Your task to perform on an android device: Open Youtube and go to "Your channel" Image 0: 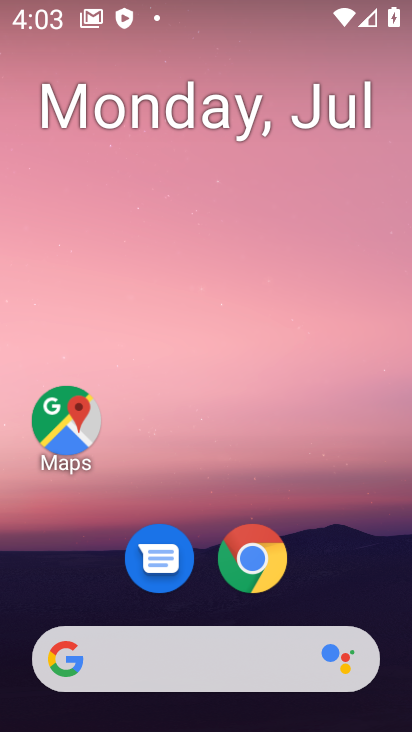
Step 0: drag from (204, 609) to (276, 5)
Your task to perform on an android device: Open Youtube and go to "Your channel" Image 1: 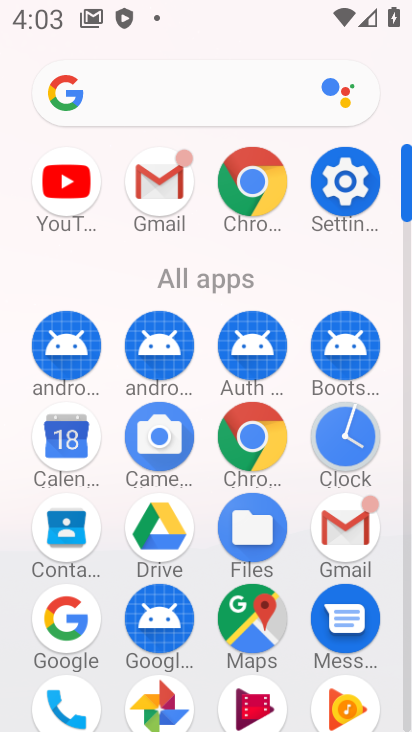
Step 1: click (58, 182)
Your task to perform on an android device: Open Youtube and go to "Your channel" Image 2: 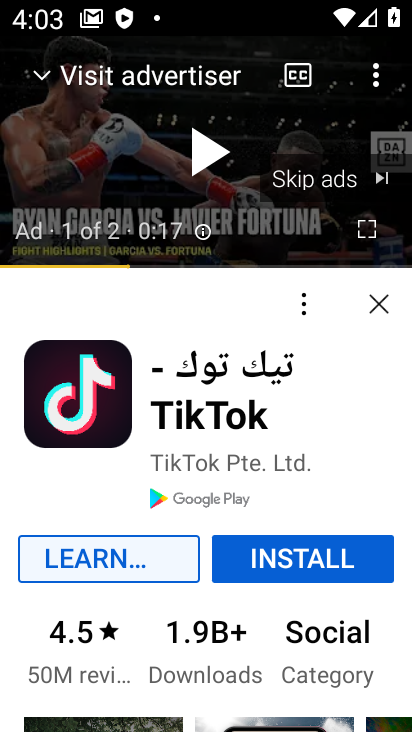
Step 2: drag from (203, 121) to (226, 614)
Your task to perform on an android device: Open Youtube and go to "Your channel" Image 3: 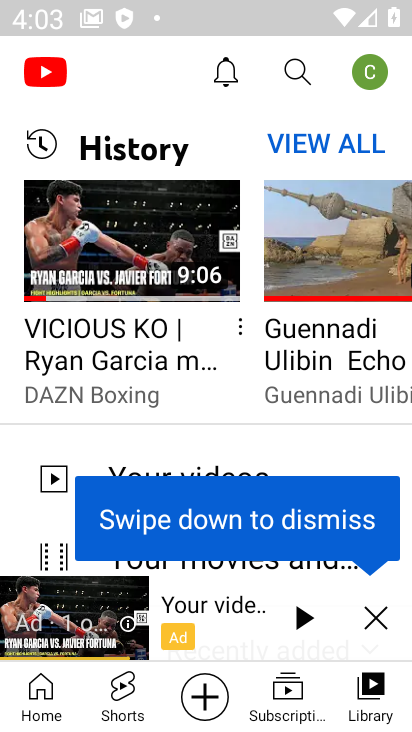
Step 3: click (370, 68)
Your task to perform on an android device: Open Youtube and go to "Your channel" Image 4: 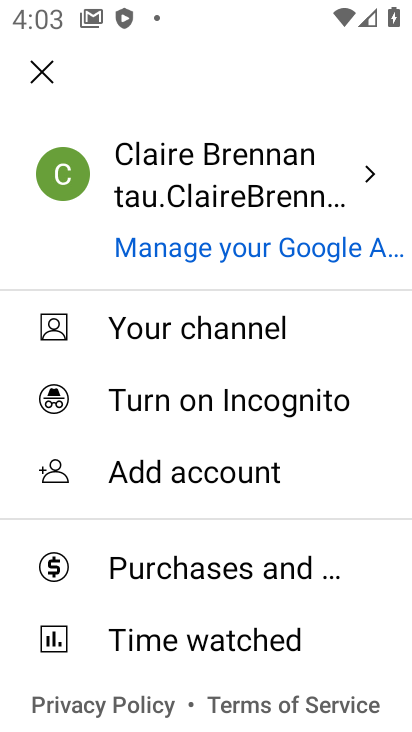
Step 4: click (152, 336)
Your task to perform on an android device: Open Youtube and go to "Your channel" Image 5: 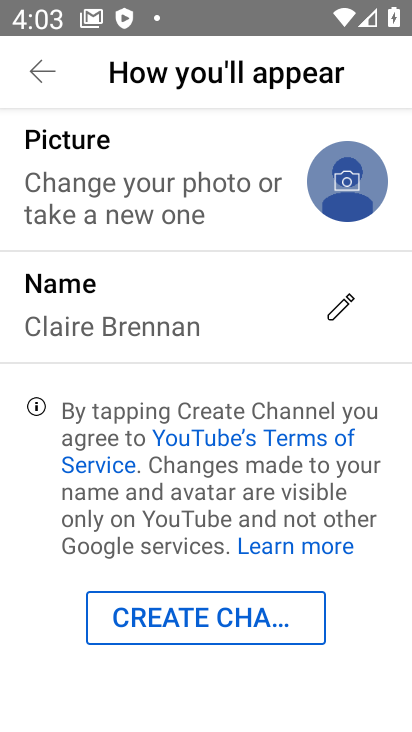
Step 5: click (40, 52)
Your task to perform on an android device: Open Youtube and go to "Your channel" Image 6: 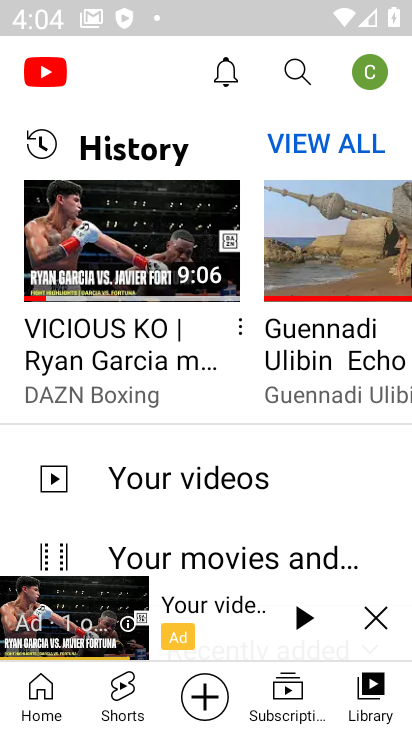
Step 6: click (359, 58)
Your task to perform on an android device: Open Youtube and go to "Your channel" Image 7: 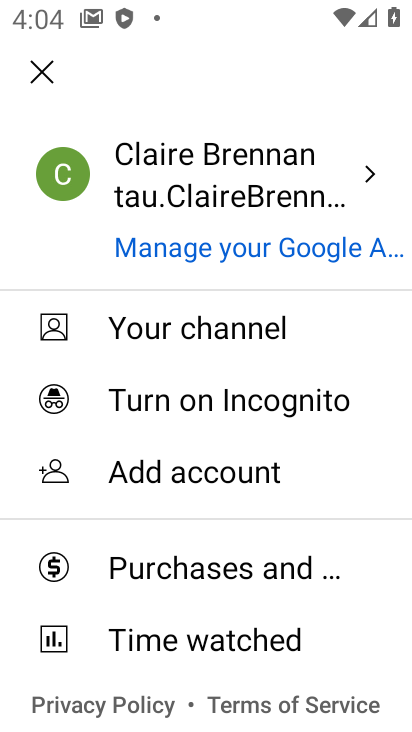
Step 7: click (148, 329)
Your task to perform on an android device: Open Youtube and go to "Your channel" Image 8: 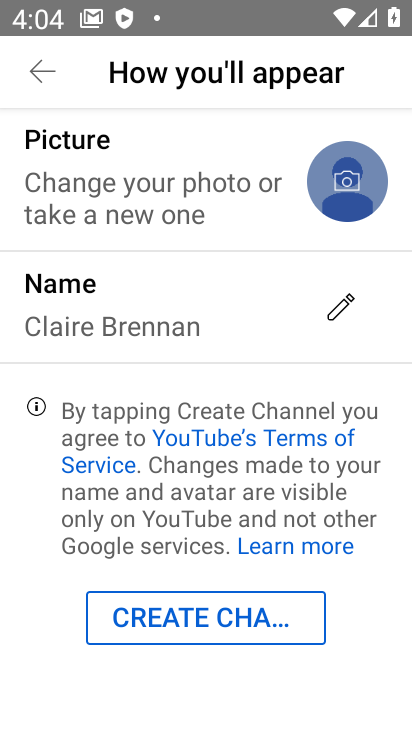
Step 8: task complete